Your task to perform on an android device: Open calendar and show me the first week of next month Image 0: 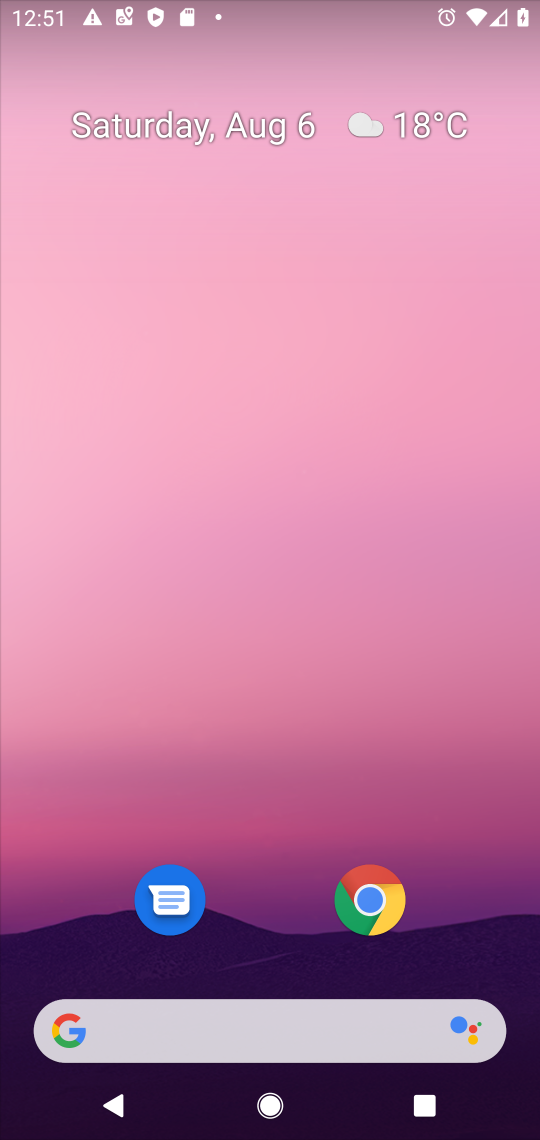
Step 0: drag from (298, 824) to (242, 56)
Your task to perform on an android device: Open calendar and show me the first week of next month Image 1: 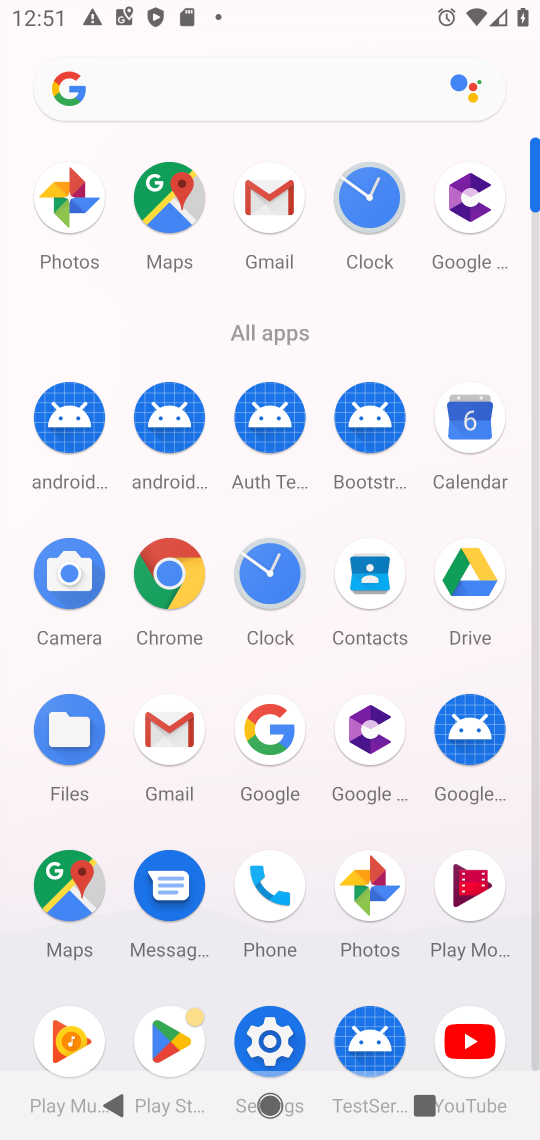
Step 1: click (481, 408)
Your task to perform on an android device: Open calendar and show me the first week of next month Image 2: 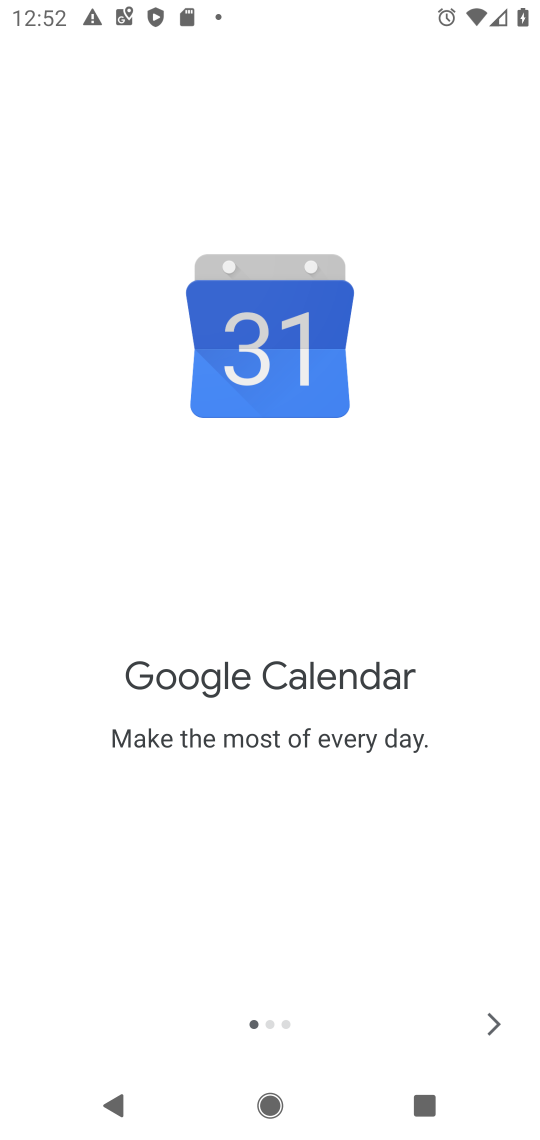
Step 2: click (493, 1021)
Your task to perform on an android device: Open calendar and show me the first week of next month Image 3: 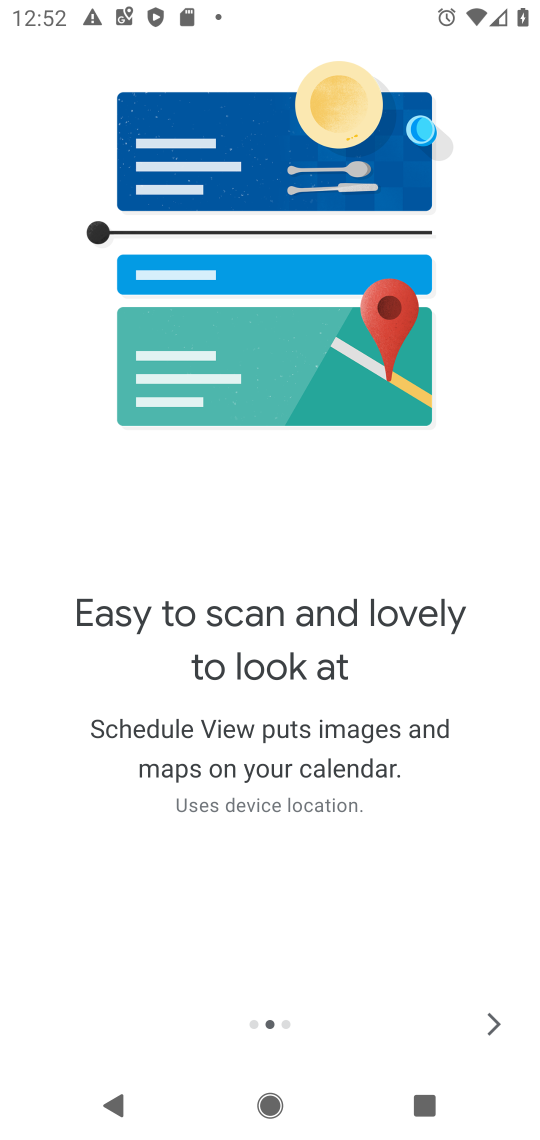
Step 3: click (493, 1021)
Your task to perform on an android device: Open calendar and show me the first week of next month Image 4: 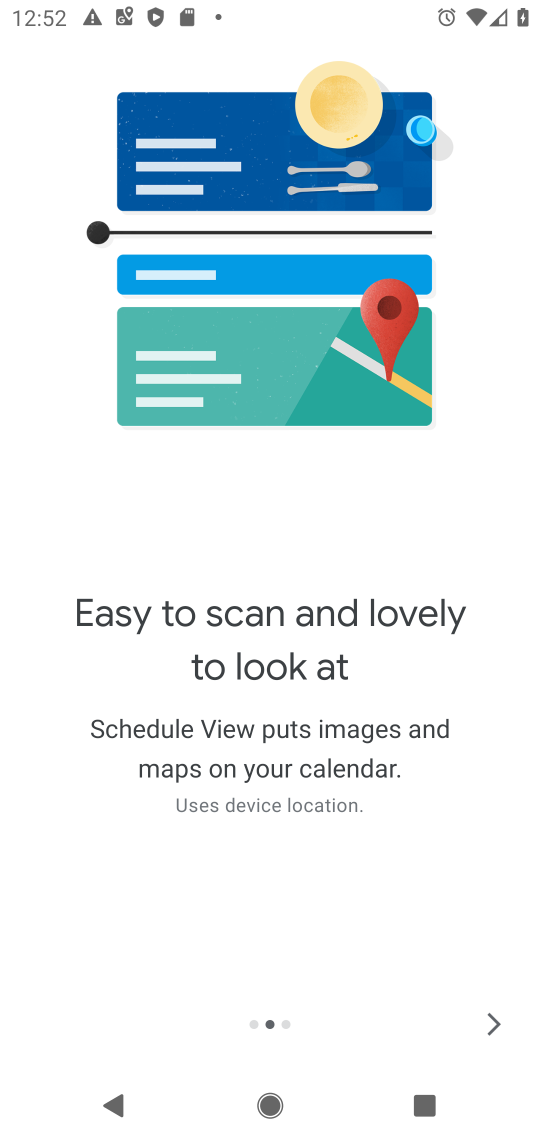
Step 4: click (493, 1021)
Your task to perform on an android device: Open calendar and show me the first week of next month Image 5: 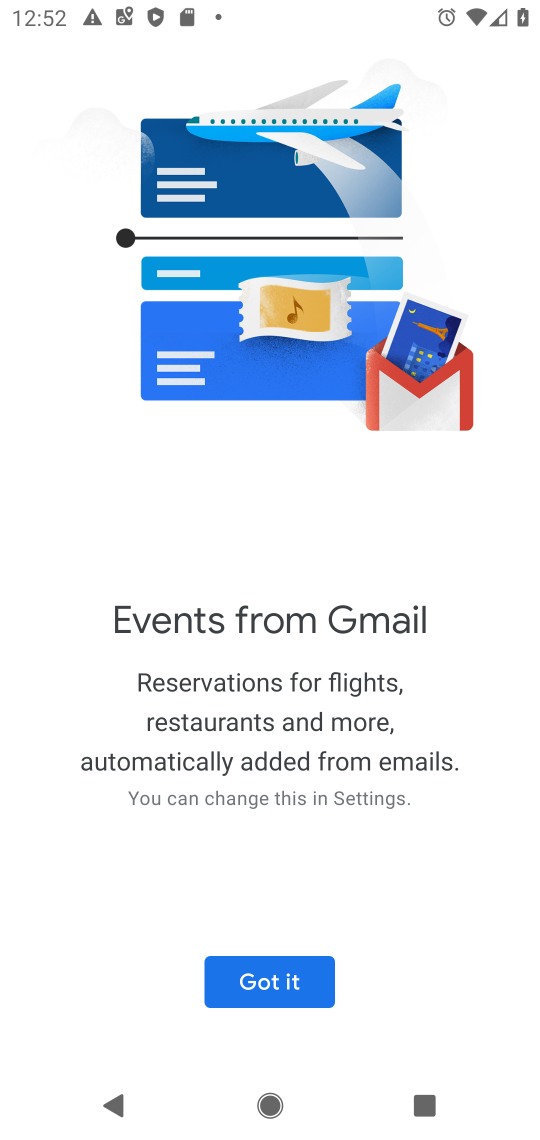
Step 5: click (265, 979)
Your task to perform on an android device: Open calendar and show me the first week of next month Image 6: 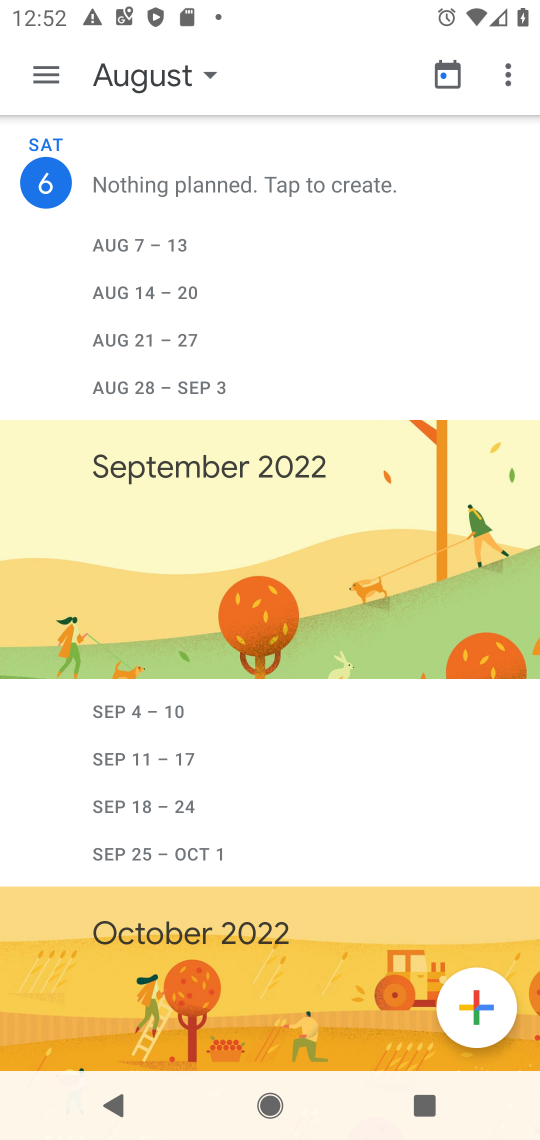
Step 6: click (42, 68)
Your task to perform on an android device: Open calendar and show me the first week of next month Image 7: 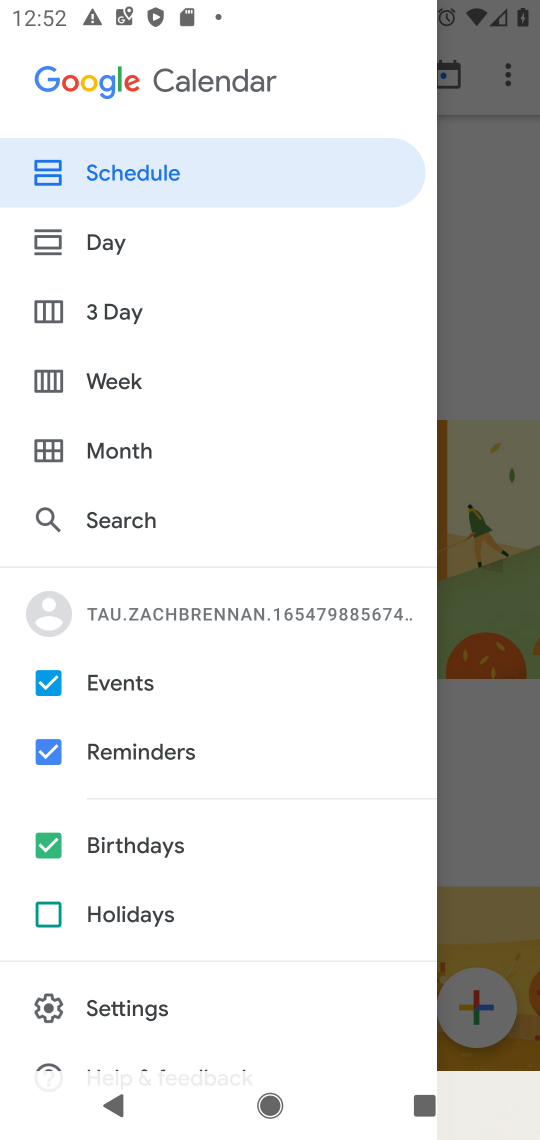
Step 7: click (134, 379)
Your task to perform on an android device: Open calendar and show me the first week of next month Image 8: 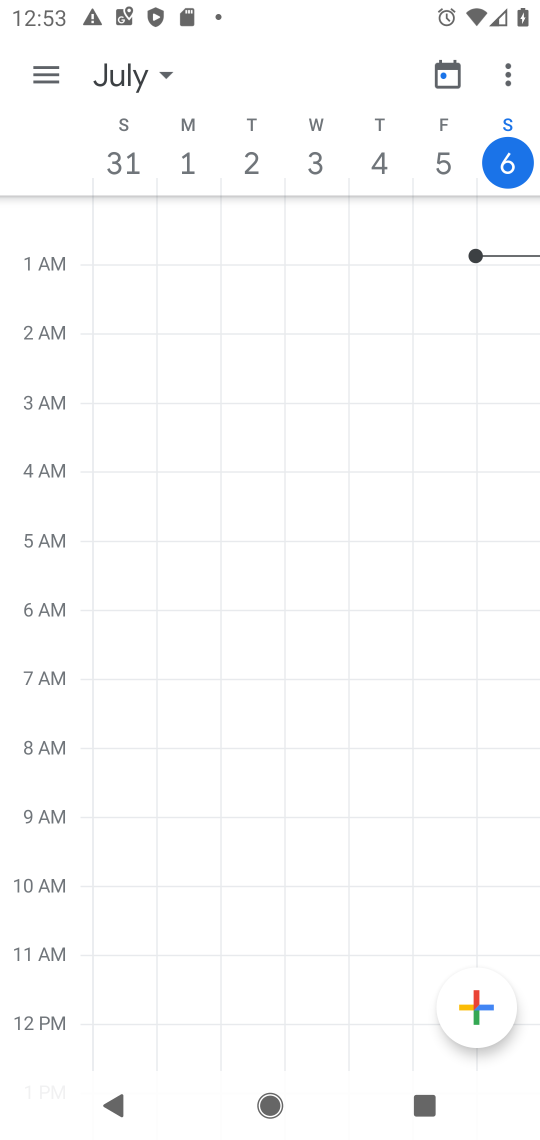
Step 8: click (168, 76)
Your task to perform on an android device: Open calendar and show me the first week of next month Image 9: 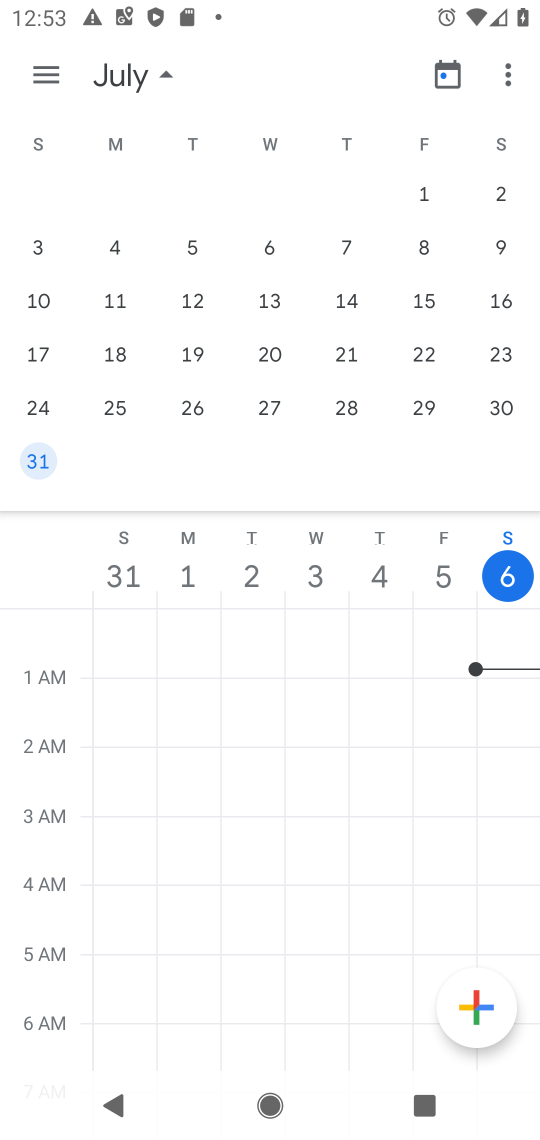
Step 9: drag from (469, 320) to (0, 302)
Your task to perform on an android device: Open calendar and show me the first week of next month Image 10: 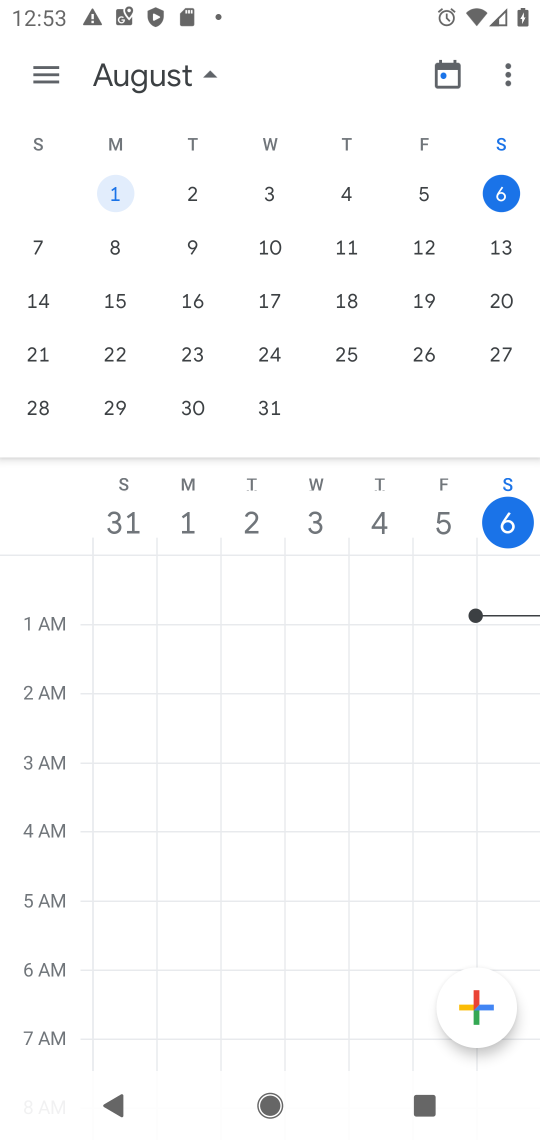
Step 10: click (447, 276)
Your task to perform on an android device: Open calendar and show me the first week of next month Image 11: 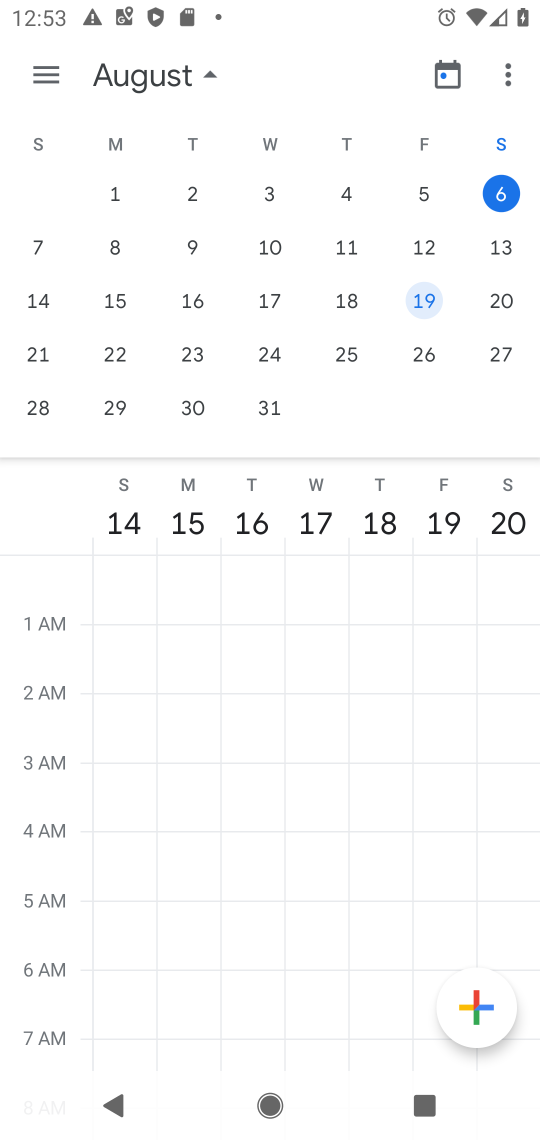
Step 11: drag from (447, 276) to (3, 302)
Your task to perform on an android device: Open calendar and show me the first week of next month Image 12: 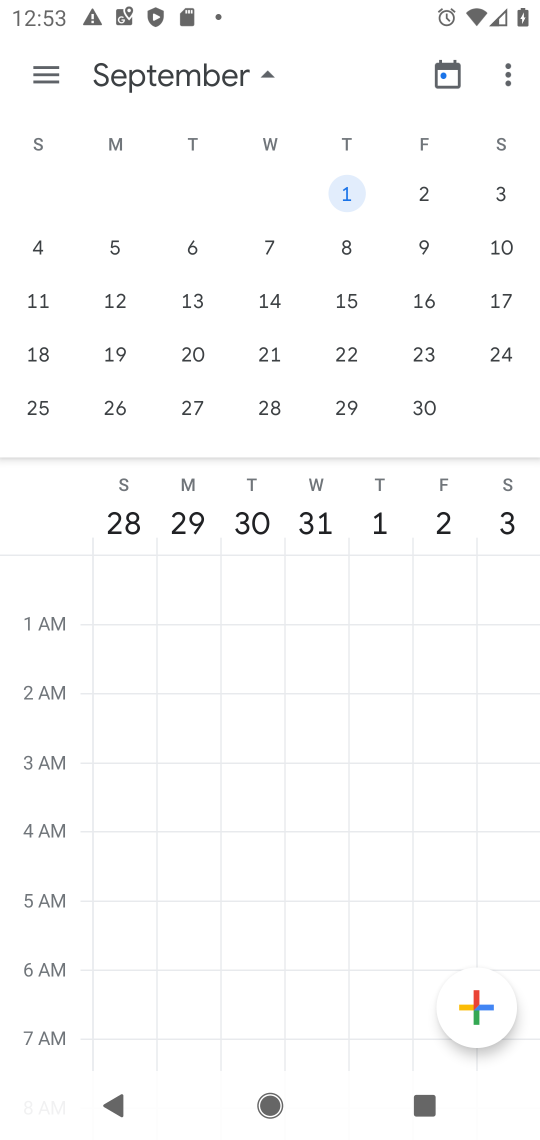
Step 12: click (278, 245)
Your task to perform on an android device: Open calendar and show me the first week of next month Image 13: 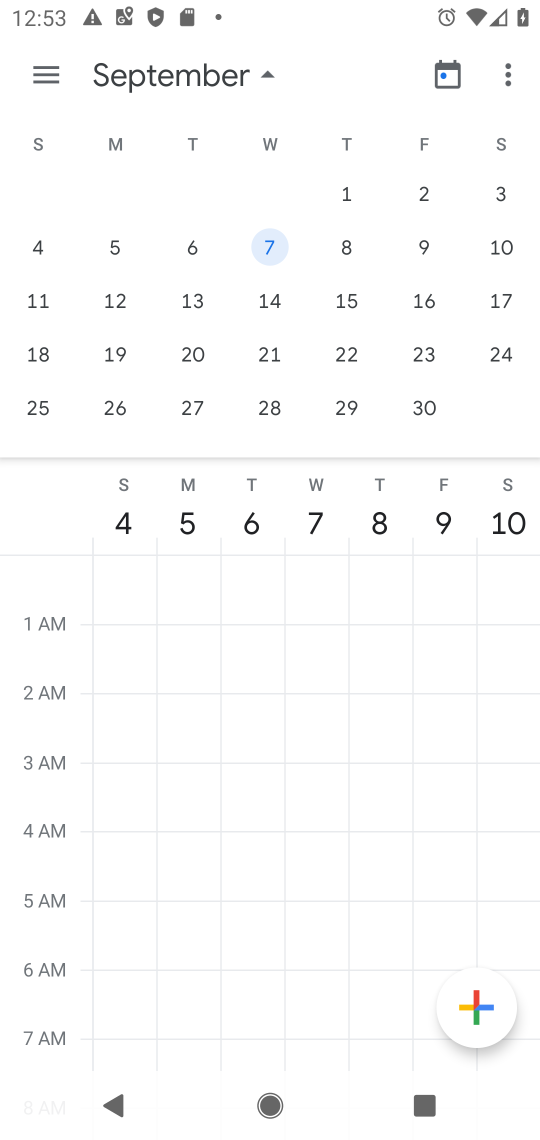
Step 13: task complete